Your task to perform on an android device: move an email to a new category in the gmail app Image 0: 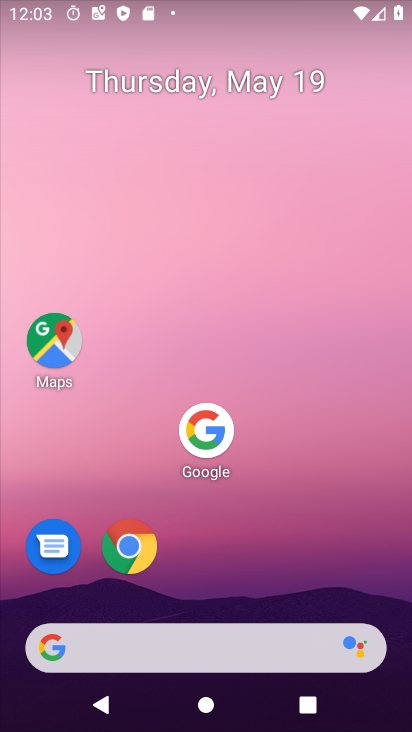
Step 0: drag from (265, 528) to (264, 73)
Your task to perform on an android device: move an email to a new category in the gmail app Image 1: 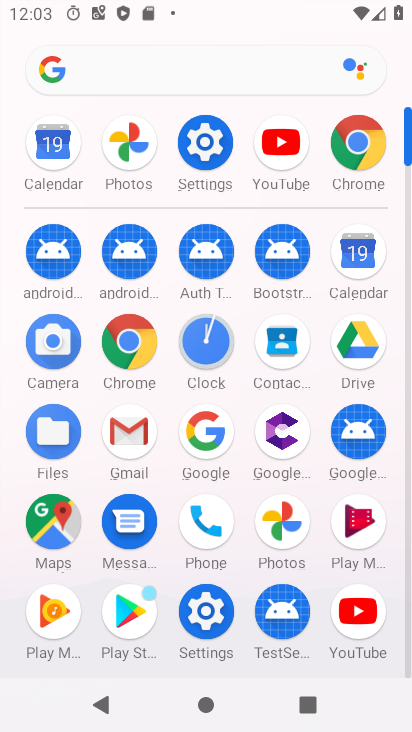
Step 1: click (123, 429)
Your task to perform on an android device: move an email to a new category in the gmail app Image 2: 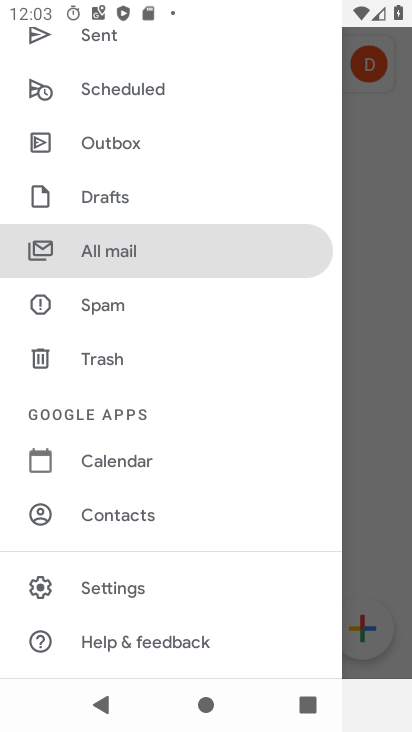
Step 2: click (128, 256)
Your task to perform on an android device: move an email to a new category in the gmail app Image 3: 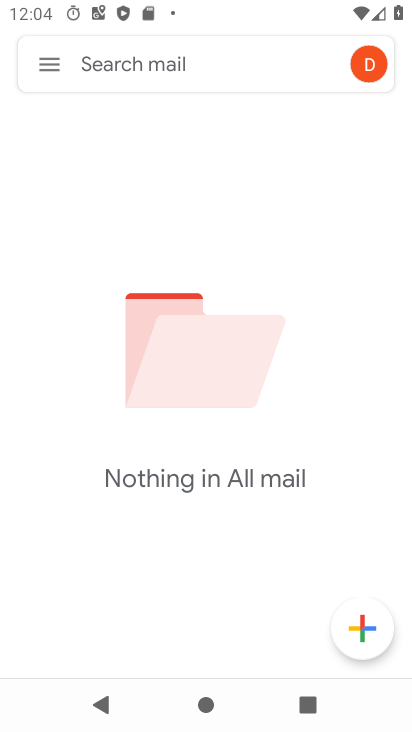
Step 3: task complete